Your task to perform on an android device: set an alarm Image 0: 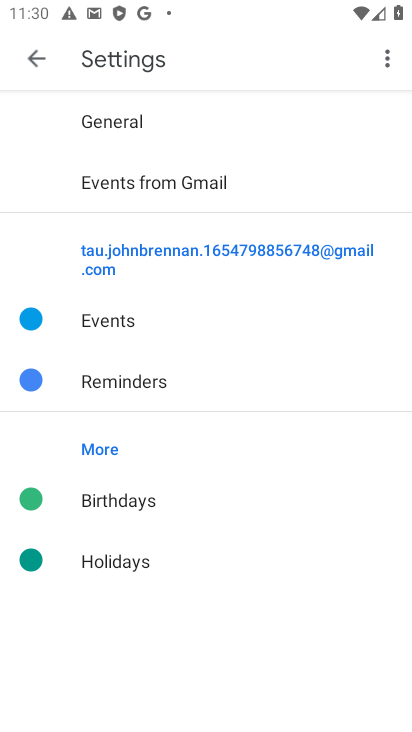
Step 0: press home button
Your task to perform on an android device: set an alarm Image 1: 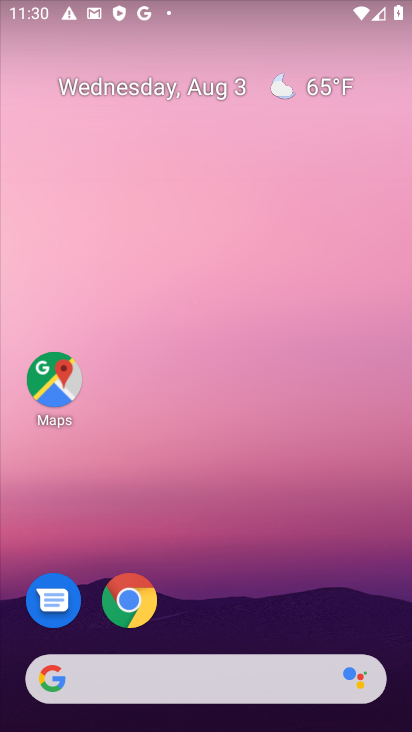
Step 1: drag from (187, 626) to (193, 3)
Your task to perform on an android device: set an alarm Image 2: 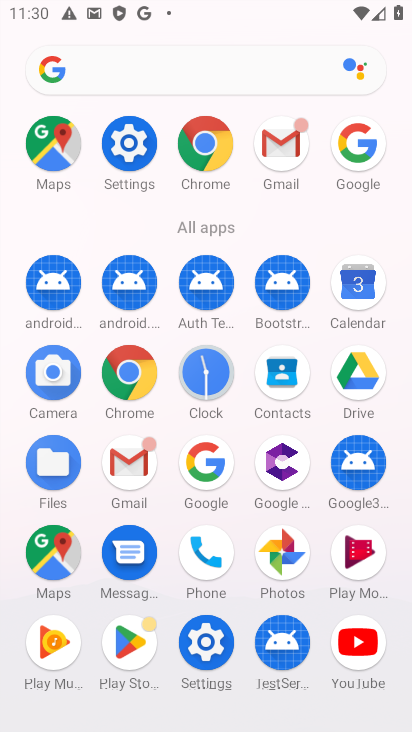
Step 2: click (209, 356)
Your task to perform on an android device: set an alarm Image 3: 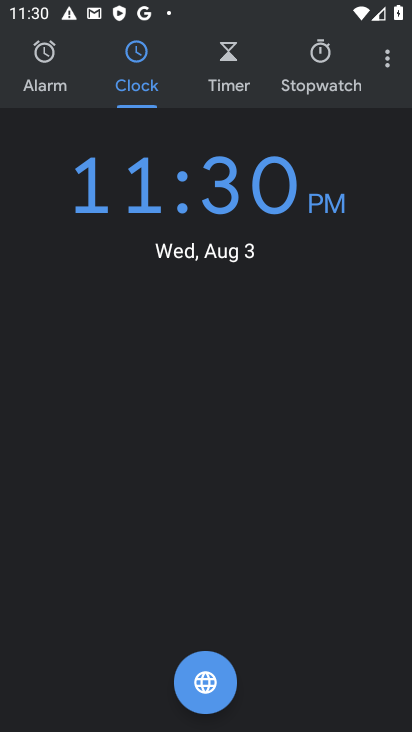
Step 3: click (47, 66)
Your task to perform on an android device: set an alarm Image 4: 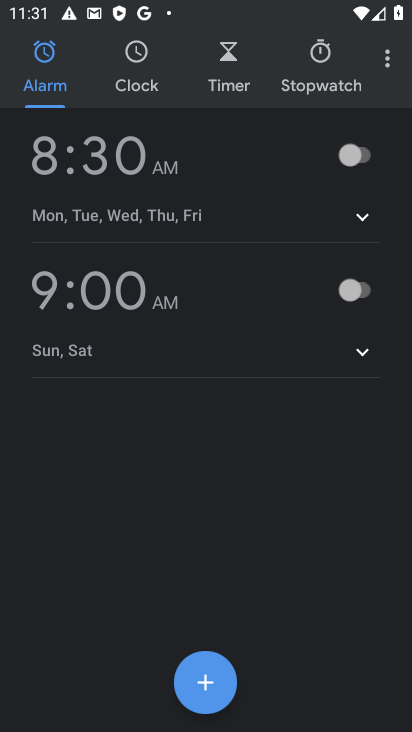
Step 4: click (209, 701)
Your task to perform on an android device: set an alarm Image 5: 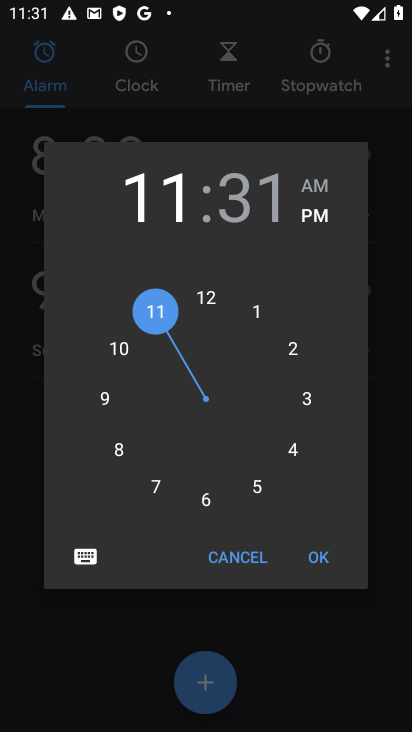
Step 5: click (316, 552)
Your task to perform on an android device: set an alarm Image 6: 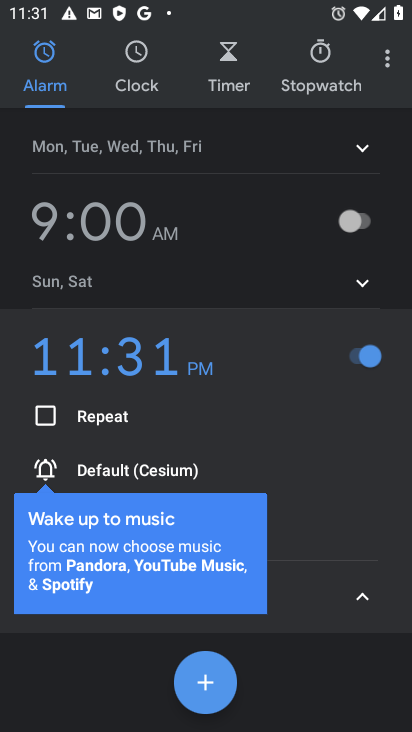
Step 6: task complete